Your task to perform on an android device: toggle show notifications on the lock screen Image 0: 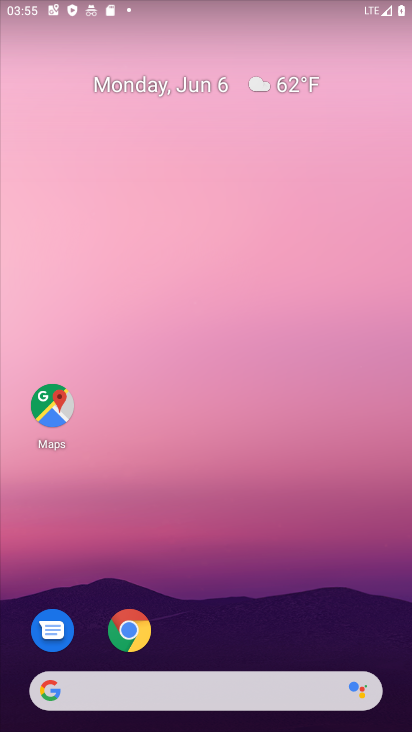
Step 0: drag from (247, 616) to (283, 8)
Your task to perform on an android device: toggle show notifications on the lock screen Image 1: 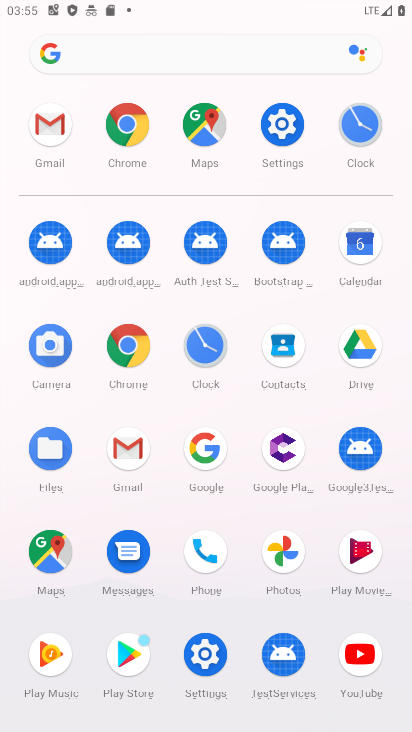
Step 1: click (277, 127)
Your task to perform on an android device: toggle show notifications on the lock screen Image 2: 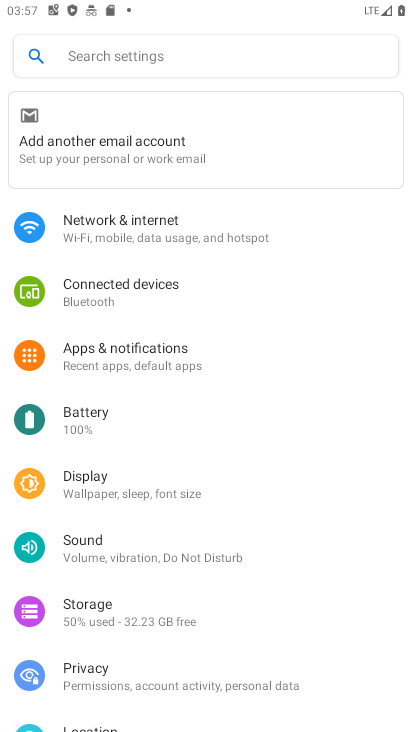
Step 2: click (124, 357)
Your task to perform on an android device: toggle show notifications on the lock screen Image 3: 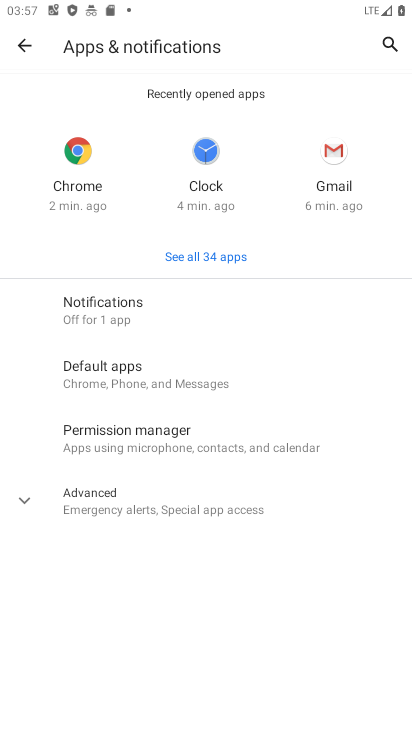
Step 3: click (174, 313)
Your task to perform on an android device: toggle show notifications on the lock screen Image 4: 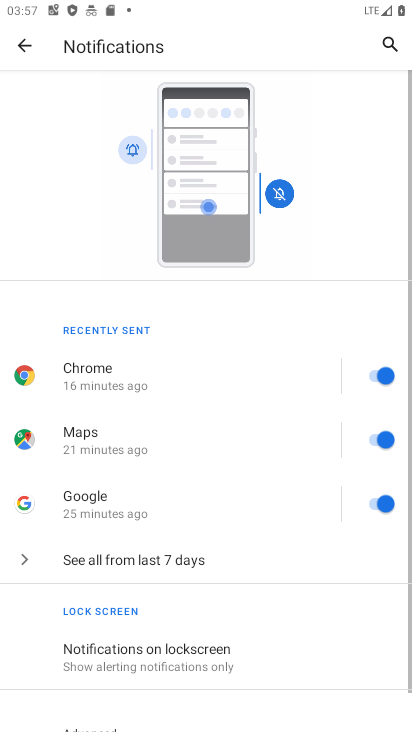
Step 4: click (163, 651)
Your task to perform on an android device: toggle show notifications on the lock screen Image 5: 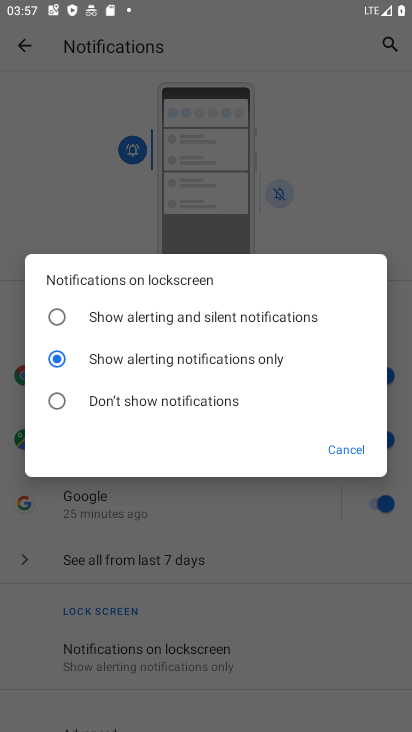
Step 5: click (167, 401)
Your task to perform on an android device: toggle show notifications on the lock screen Image 6: 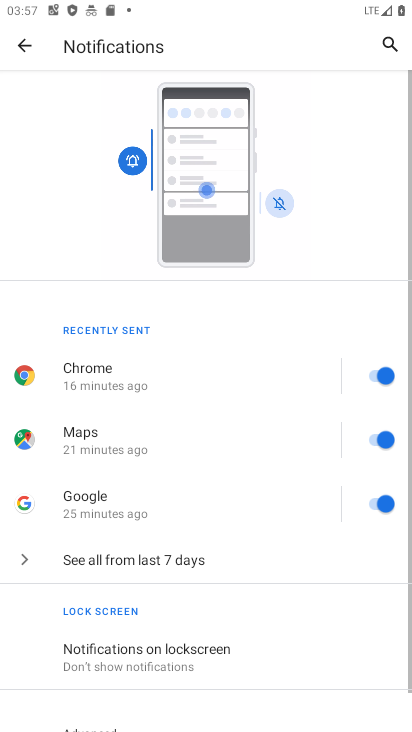
Step 6: task complete